Your task to perform on an android device: visit the assistant section in the google photos Image 0: 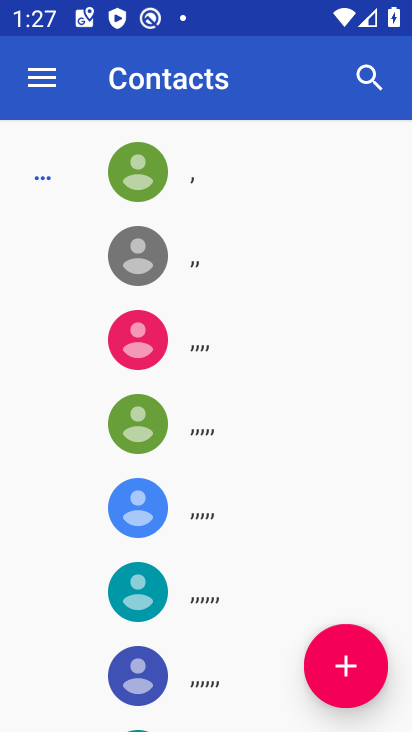
Step 0: press home button
Your task to perform on an android device: visit the assistant section in the google photos Image 1: 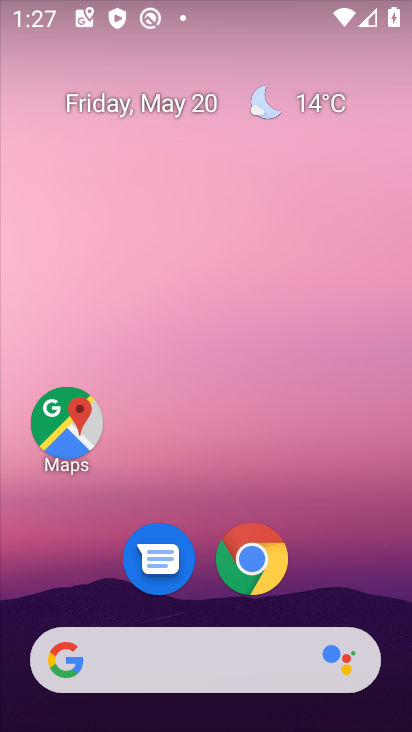
Step 1: drag from (384, 581) to (276, 211)
Your task to perform on an android device: visit the assistant section in the google photos Image 2: 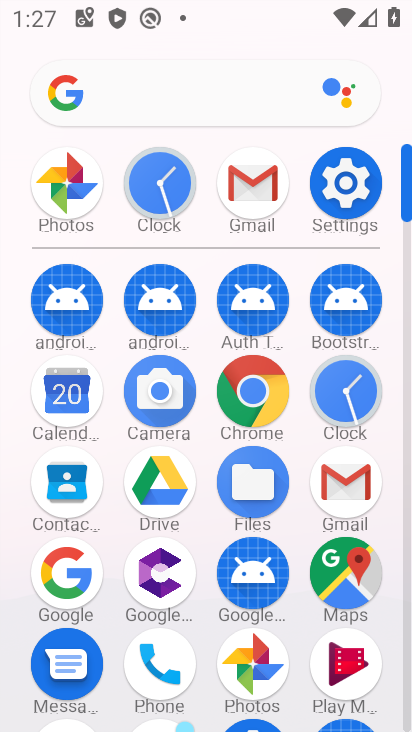
Step 2: click (52, 183)
Your task to perform on an android device: visit the assistant section in the google photos Image 3: 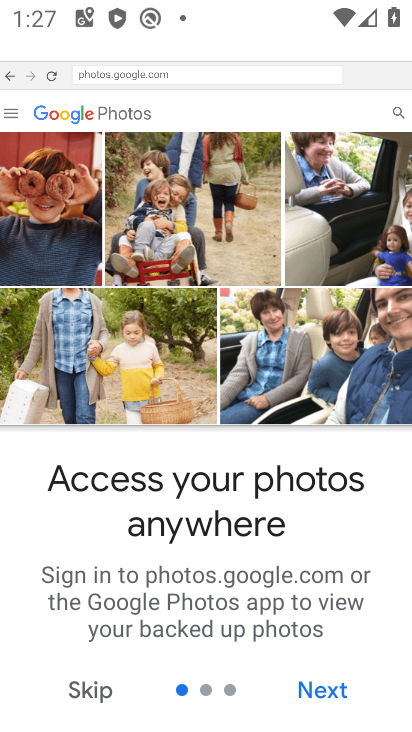
Step 3: click (78, 682)
Your task to perform on an android device: visit the assistant section in the google photos Image 4: 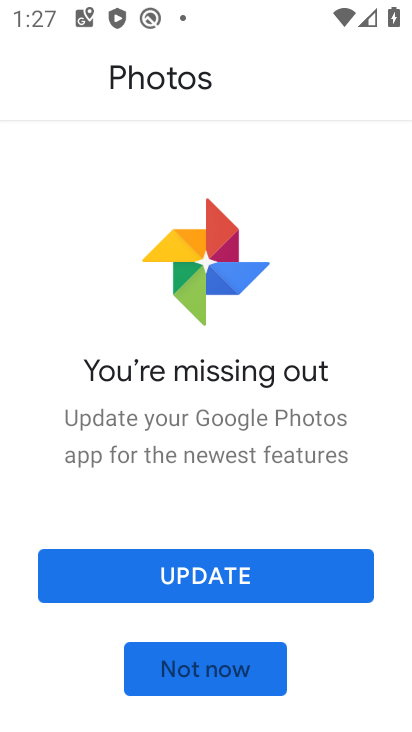
Step 4: click (181, 577)
Your task to perform on an android device: visit the assistant section in the google photos Image 5: 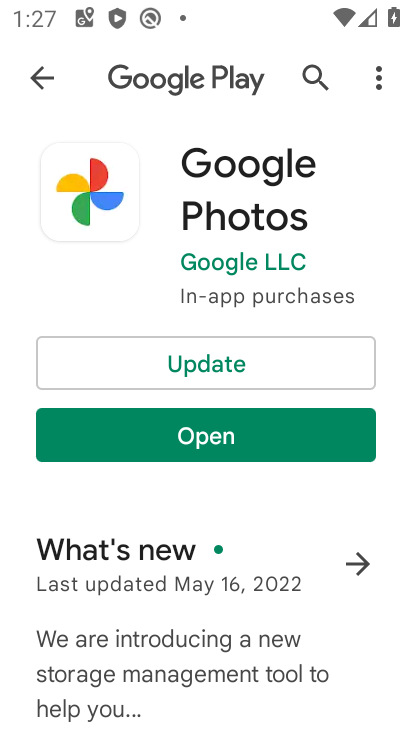
Step 5: click (219, 356)
Your task to perform on an android device: visit the assistant section in the google photos Image 6: 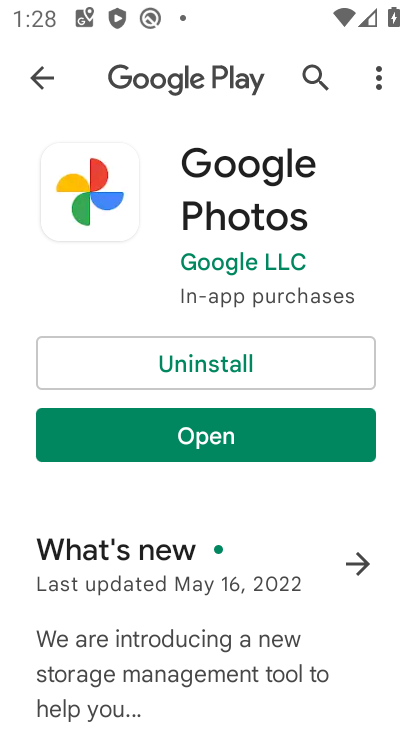
Step 6: click (246, 428)
Your task to perform on an android device: visit the assistant section in the google photos Image 7: 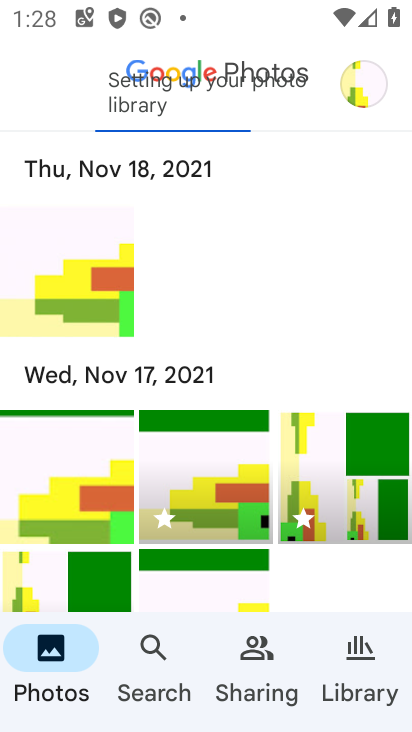
Step 7: click (344, 703)
Your task to perform on an android device: visit the assistant section in the google photos Image 8: 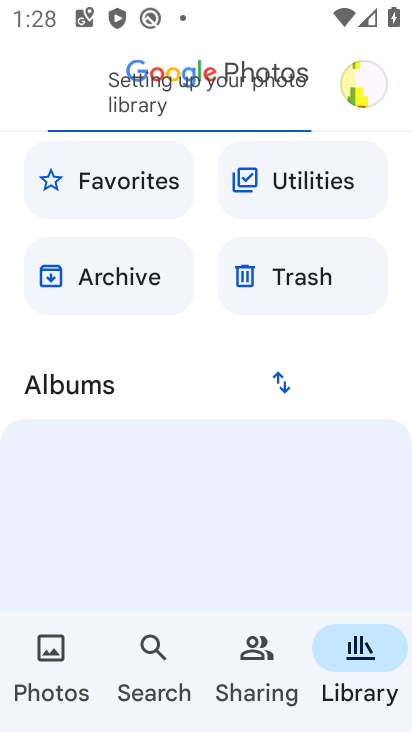
Step 8: click (111, 266)
Your task to perform on an android device: visit the assistant section in the google photos Image 9: 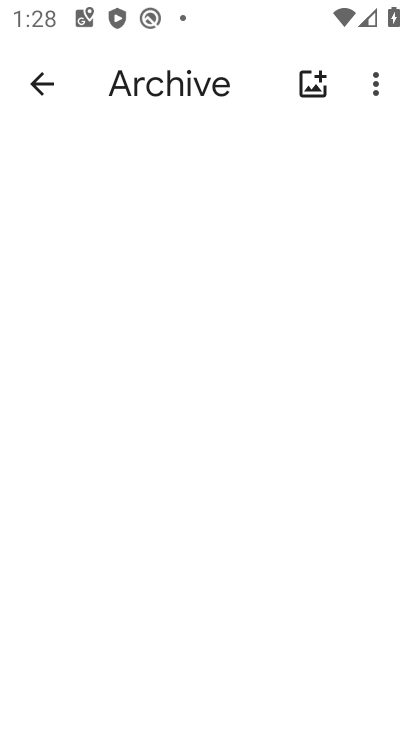
Step 9: task complete